Your task to perform on an android device: turn off improve location accuracy Image 0: 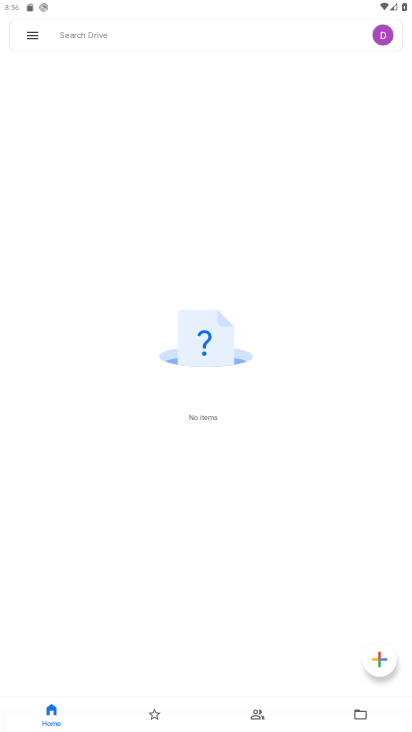
Step 0: press home button
Your task to perform on an android device: turn off improve location accuracy Image 1: 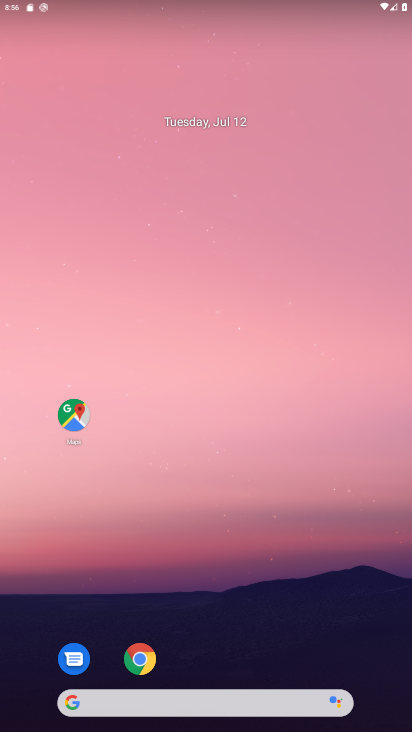
Step 1: drag from (203, 658) to (132, 28)
Your task to perform on an android device: turn off improve location accuracy Image 2: 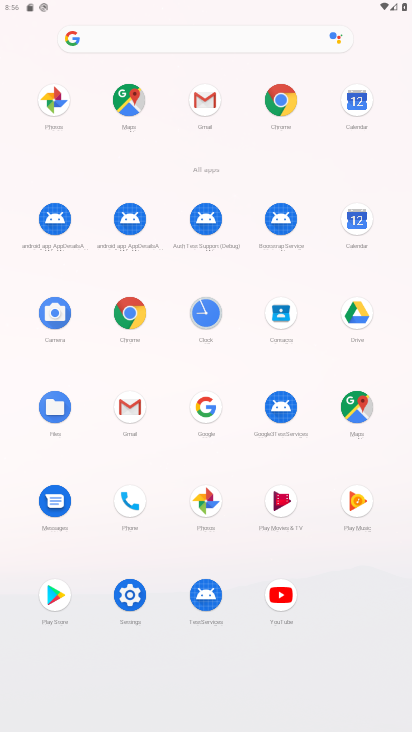
Step 2: click (128, 598)
Your task to perform on an android device: turn off improve location accuracy Image 3: 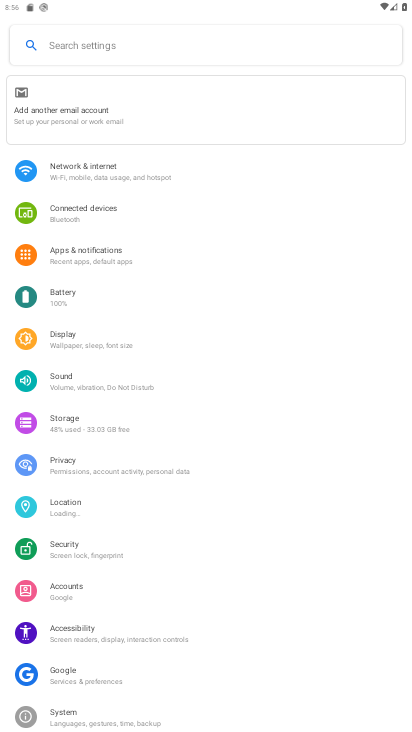
Step 3: click (58, 502)
Your task to perform on an android device: turn off improve location accuracy Image 4: 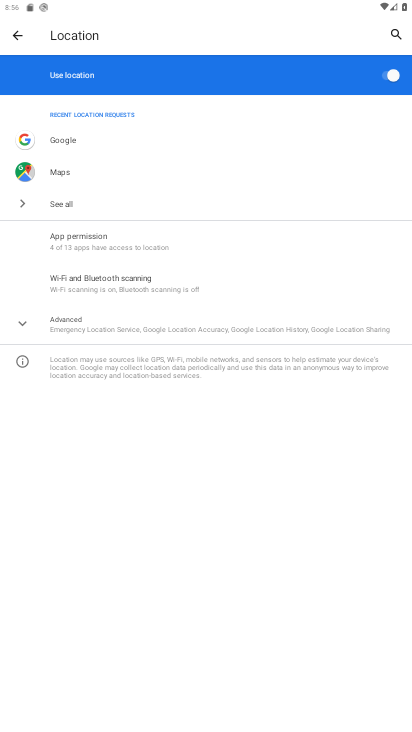
Step 4: click (75, 319)
Your task to perform on an android device: turn off improve location accuracy Image 5: 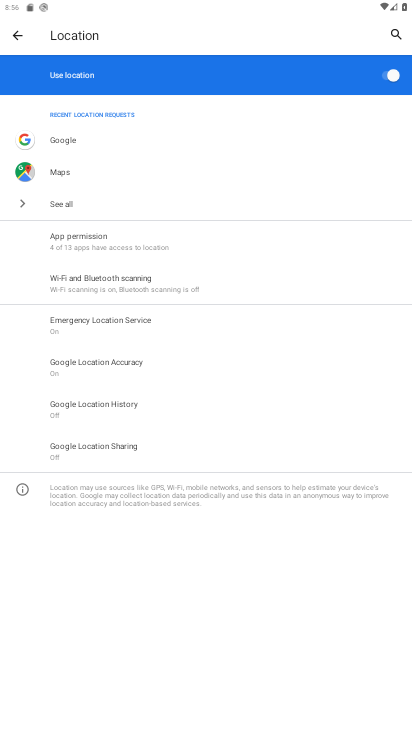
Step 5: click (63, 362)
Your task to perform on an android device: turn off improve location accuracy Image 6: 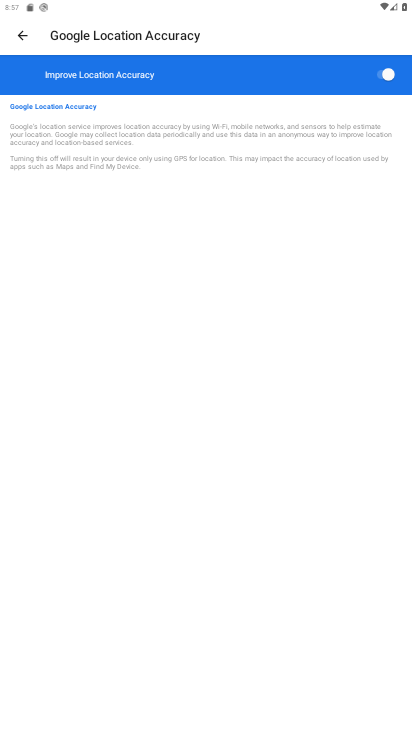
Step 6: click (369, 79)
Your task to perform on an android device: turn off improve location accuracy Image 7: 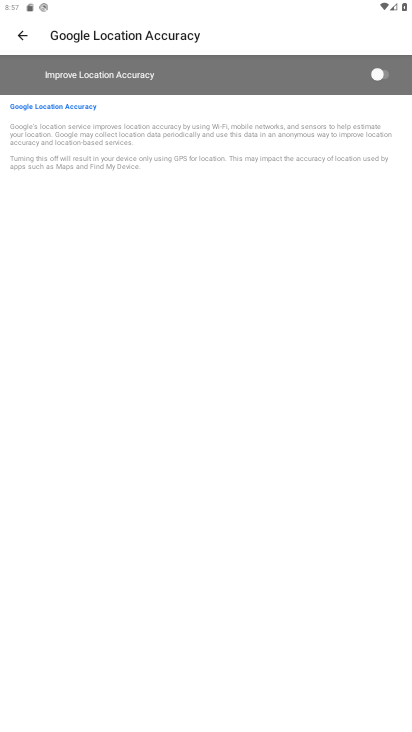
Step 7: task complete